Your task to perform on an android device: add a contact Image 0: 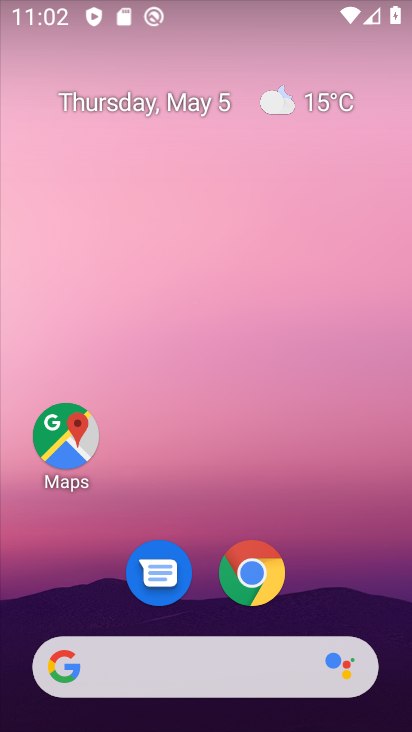
Step 0: drag from (70, 631) to (205, 39)
Your task to perform on an android device: add a contact Image 1: 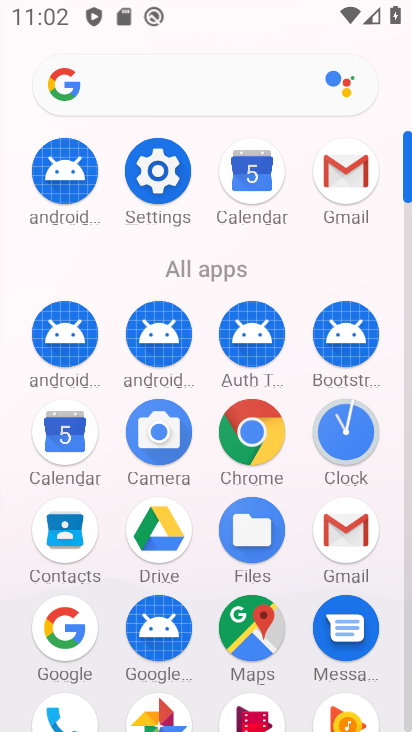
Step 1: click (63, 544)
Your task to perform on an android device: add a contact Image 2: 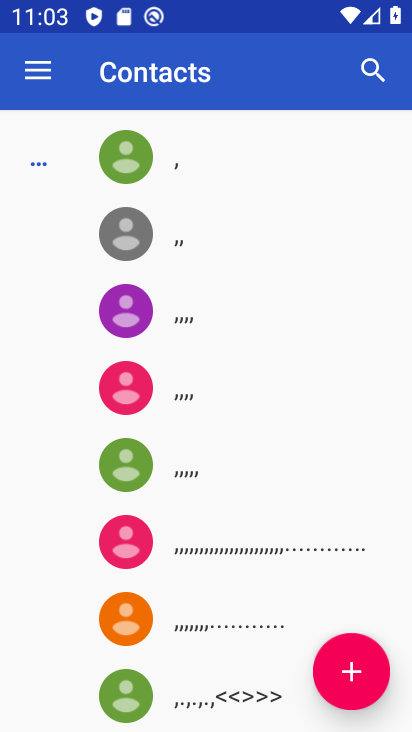
Step 2: click (369, 661)
Your task to perform on an android device: add a contact Image 3: 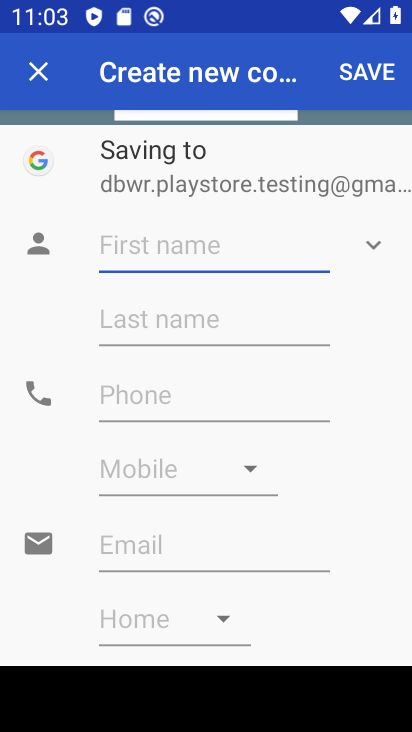
Step 3: type "ram"
Your task to perform on an android device: add a contact Image 4: 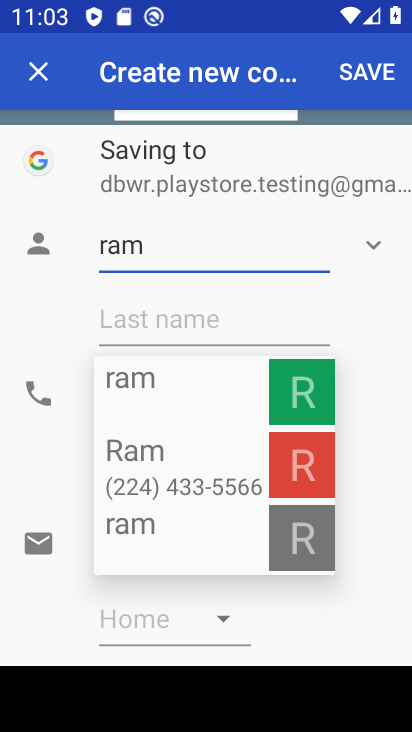
Step 4: type "y"
Your task to perform on an android device: add a contact Image 5: 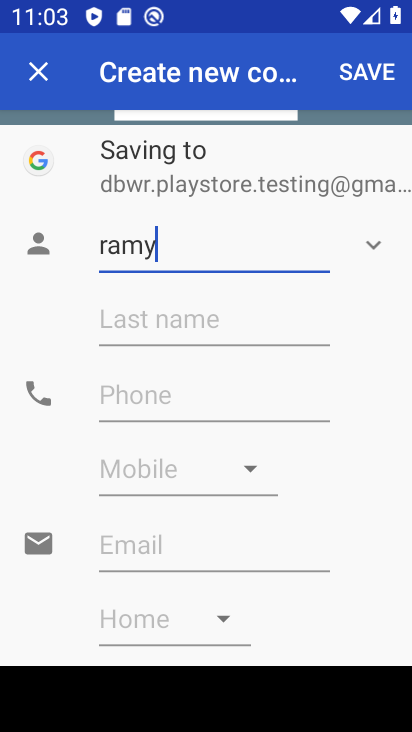
Step 5: click (148, 406)
Your task to perform on an android device: add a contact Image 6: 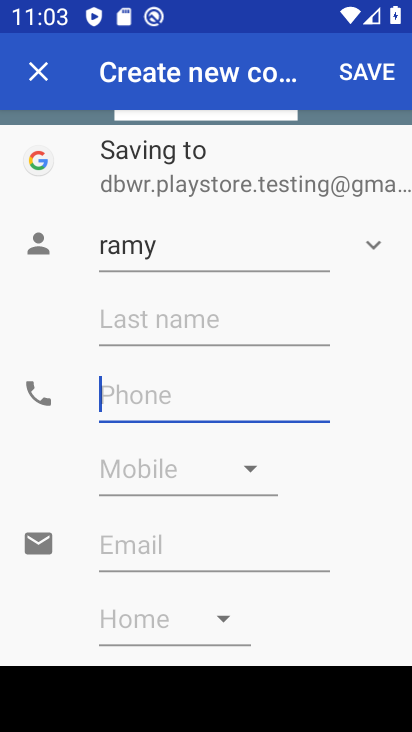
Step 6: type "512912221"
Your task to perform on an android device: add a contact Image 7: 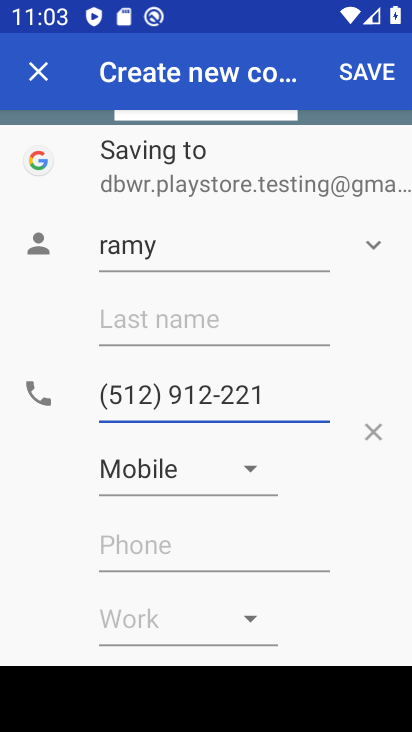
Step 7: type "2"
Your task to perform on an android device: add a contact Image 8: 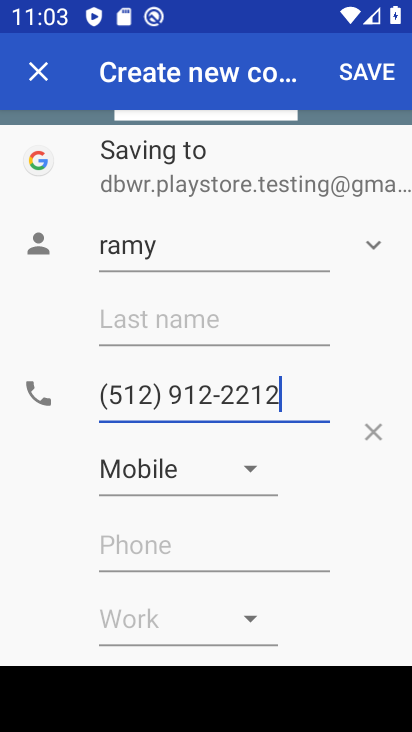
Step 8: click (256, 382)
Your task to perform on an android device: add a contact Image 9: 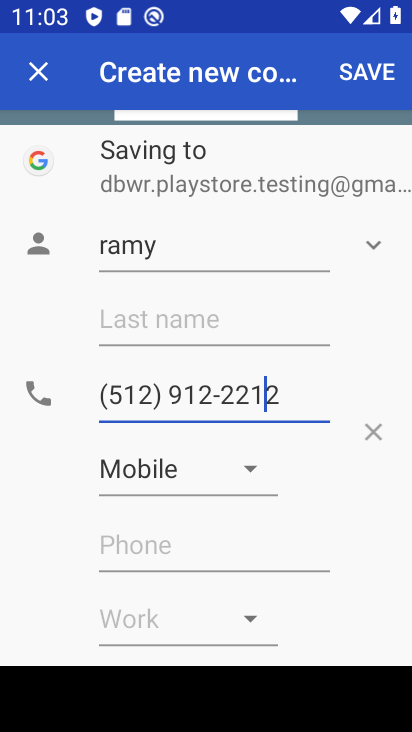
Step 9: click (350, 83)
Your task to perform on an android device: add a contact Image 10: 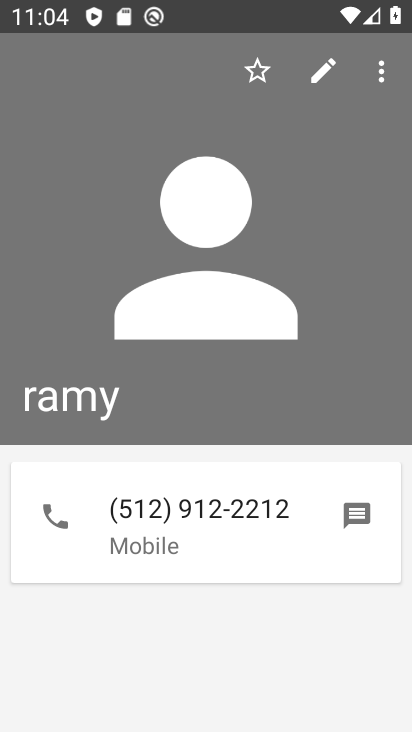
Step 10: task complete